Your task to perform on an android device: refresh tabs in the chrome app Image 0: 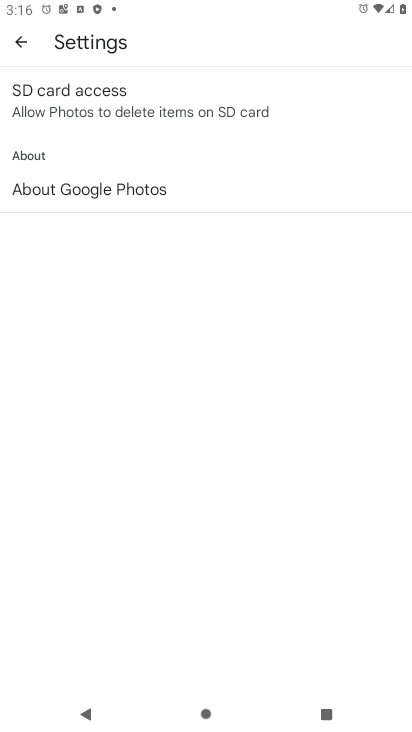
Step 0: press home button
Your task to perform on an android device: refresh tabs in the chrome app Image 1: 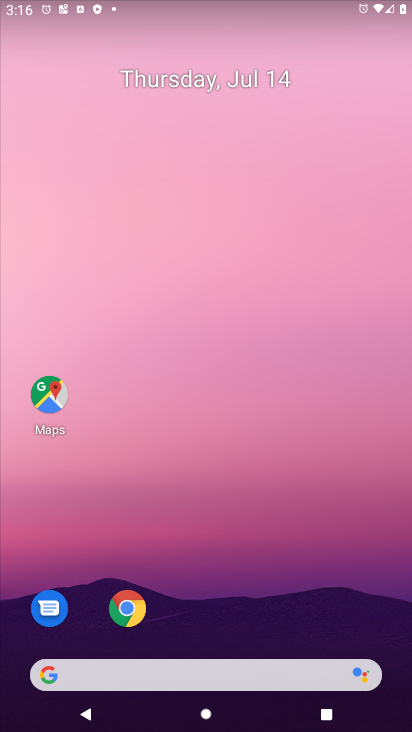
Step 1: click (128, 608)
Your task to perform on an android device: refresh tabs in the chrome app Image 2: 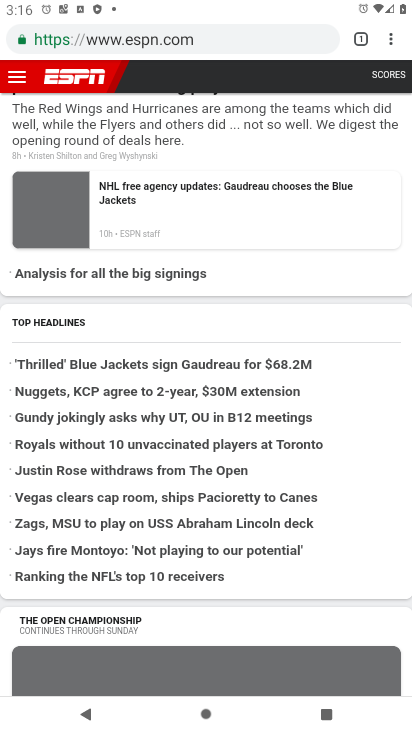
Step 2: click (389, 43)
Your task to perform on an android device: refresh tabs in the chrome app Image 3: 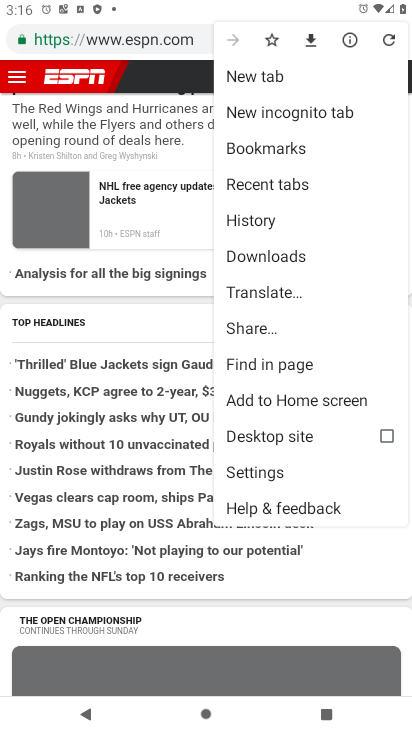
Step 3: click (390, 37)
Your task to perform on an android device: refresh tabs in the chrome app Image 4: 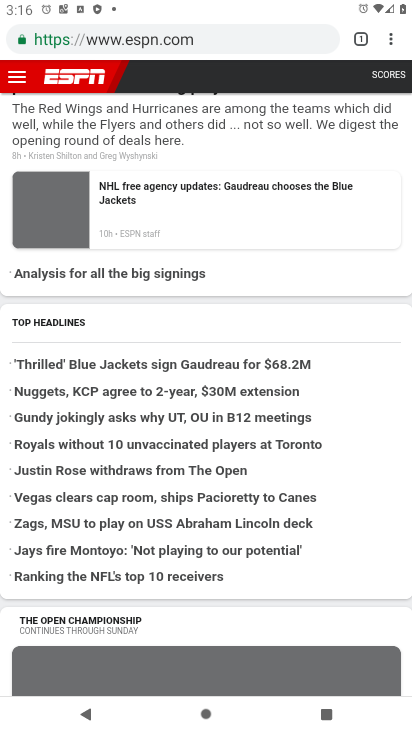
Step 4: task complete